Your task to perform on an android device: toggle translation in the chrome app Image 0: 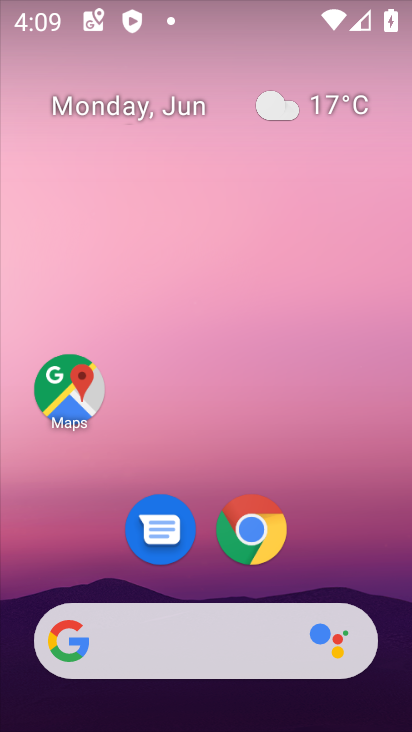
Step 0: click (250, 530)
Your task to perform on an android device: toggle translation in the chrome app Image 1: 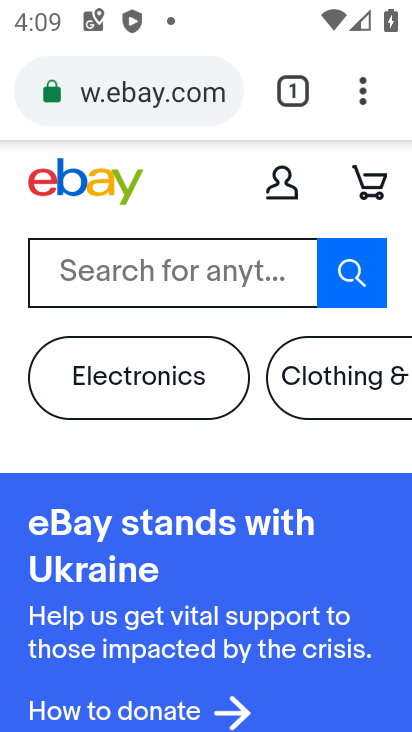
Step 1: click (364, 93)
Your task to perform on an android device: toggle translation in the chrome app Image 2: 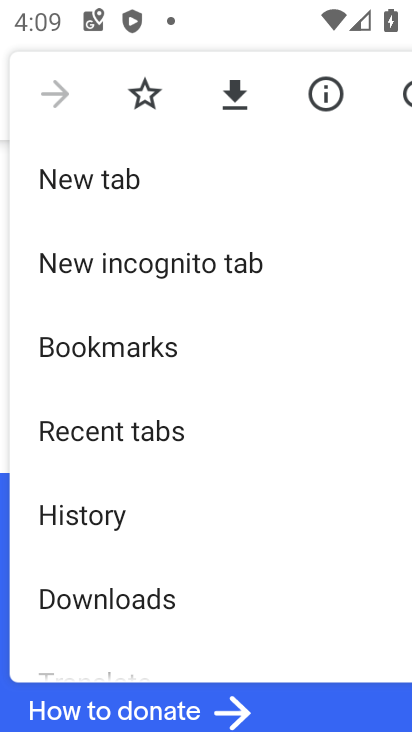
Step 2: drag from (110, 470) to (220, 220)
Your task to perform on an android device: toggle translation in the chrome app Image 3: 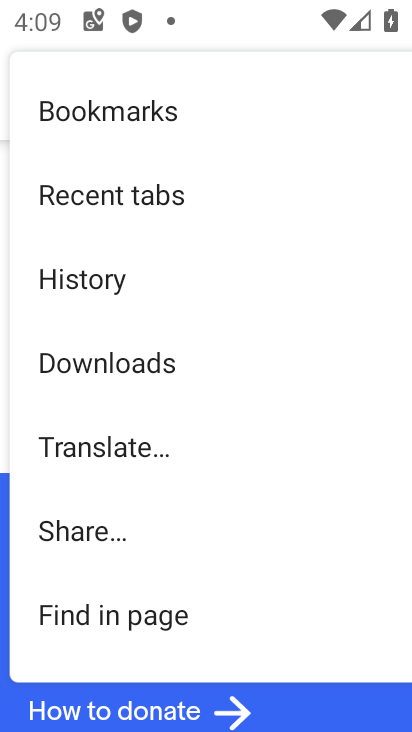
Step 3: drag from (121, 560) to (217, 301)
Your task to perform on an android device: toggle translation in the chrome app Image 4: 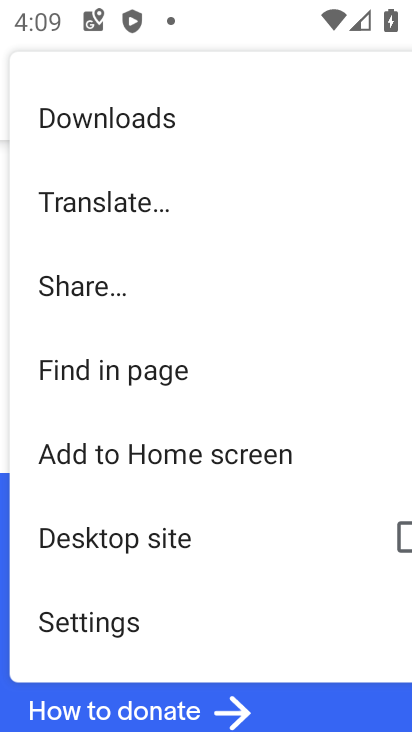
Step 4: drag from (100, 579) to (232, 394)
Your task to perform on an android device: toggle translation in the chrome app Image 5: 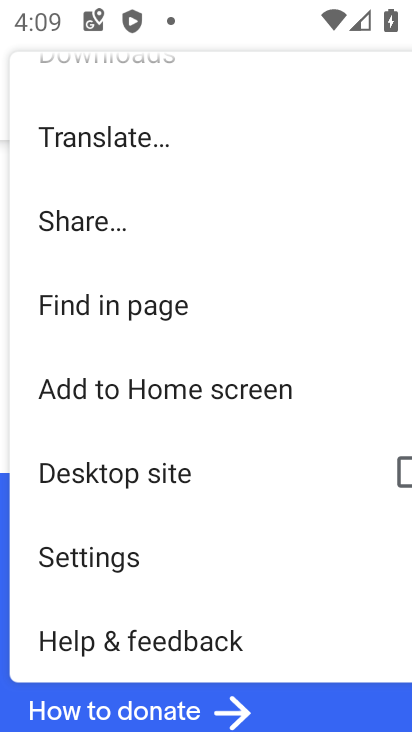
Step 5: click (104, 562)
Your task to perform on an android device: toggle translation in the chrome app Image 6: 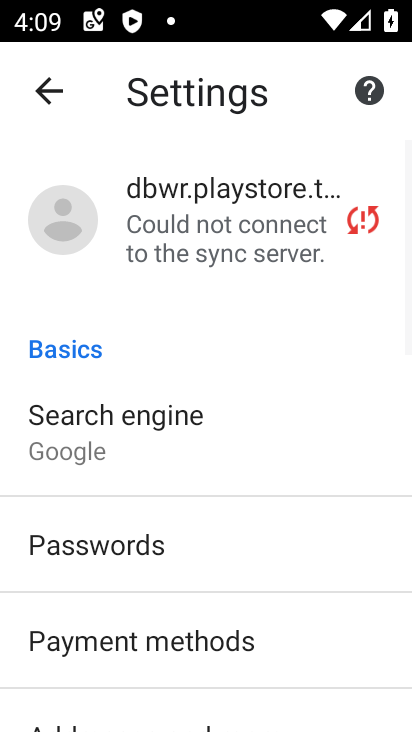
Step 6: drag from (183, 578) to (271, 412)
Your task to perform on an android device: toggle translation in the chrome app Image 7: 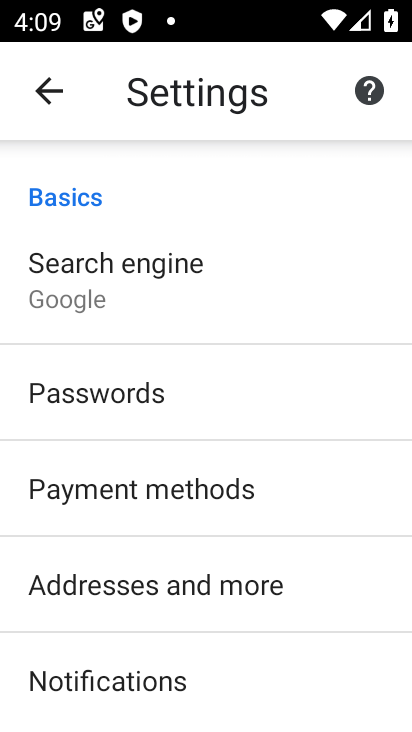
Step 7: drag from (160, 637) to (204, 451)
Your task to perform on an android device: toggle translation in the chrome app Image 8: 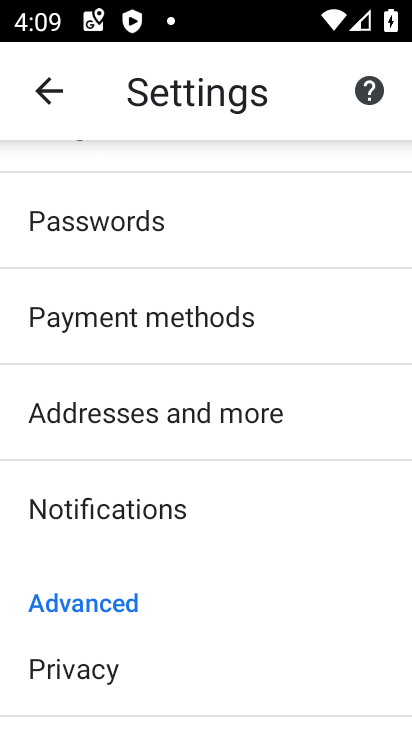
Step 8: drag from (186, 594) to (263, 379)
Your task to perform on an android device: toggle translation in the chrome app Image 9: 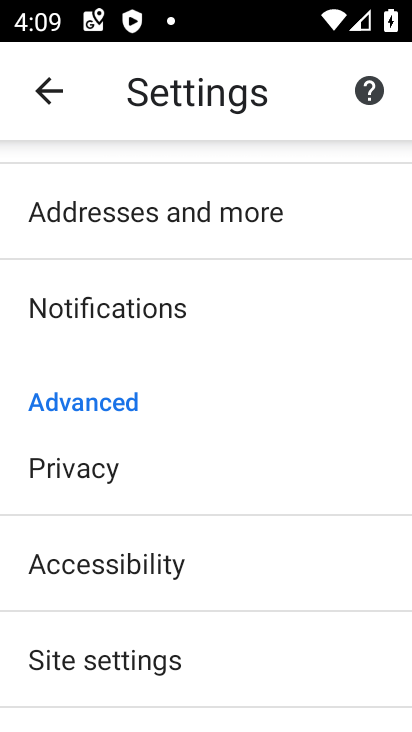
Step 9: drag from (188, 637) to (248, 468)
Your task to perform on an android device: toggle translation in the chrome app Image 10: 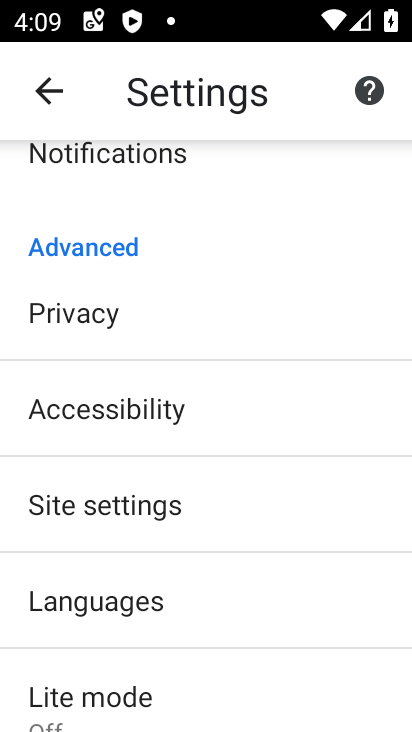
Step 10: click (121, 608)
Your task to perform on an android device: toggle translation in the chrome app Image 11: 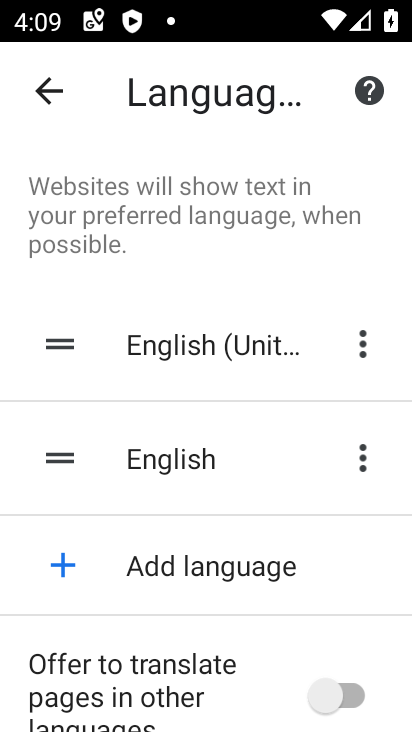
Step 11: click (348, 689)
Your task to perform on an android device: toggle translation in the chrome app Image 12: 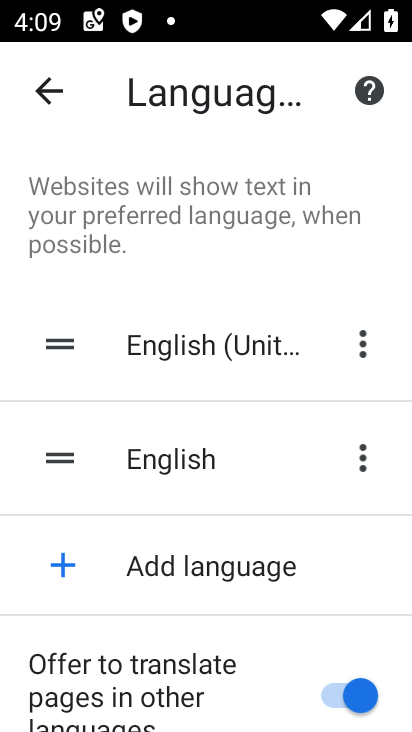
Step 12: task complete